Your task to perform on an android device: add a contact in the contacts app Image 0: 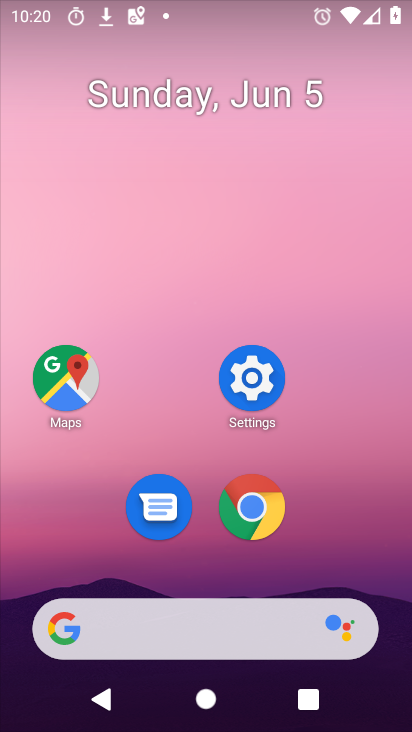
Step 0: drag from (295, 672) to (291, 250)
Your task to perform on an android device: add a contact in the contacts app Image 1: 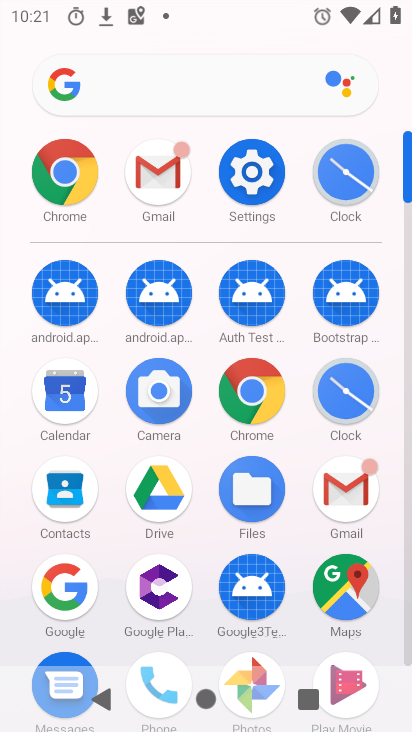
Step 1: click (157, 656)
Your task to perform on an android device: add a contact in the contacts app Image 2: 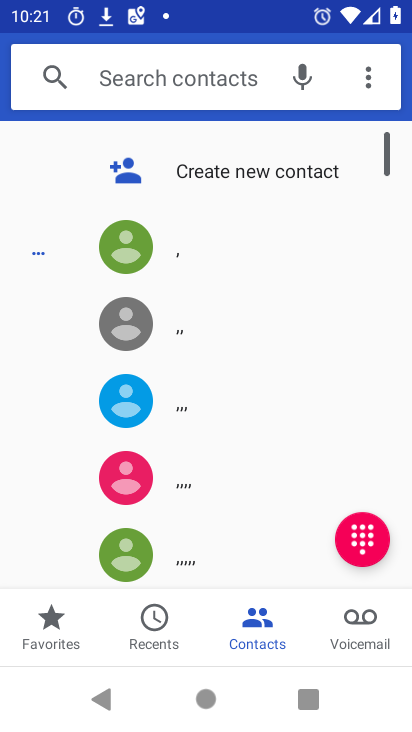
Step 2: click (214, 183)
Your task to perform on an android device: add a contact in the contacts app Image 3: 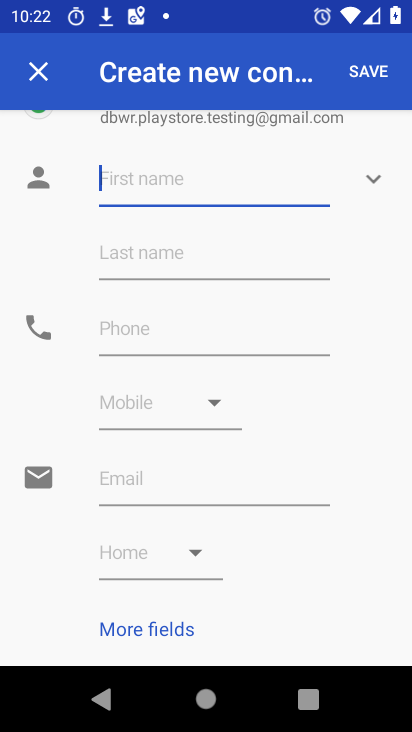
Step 3: click (162, 177)
Your task to perform on an android device: add a contact in the contacts app Image 4: 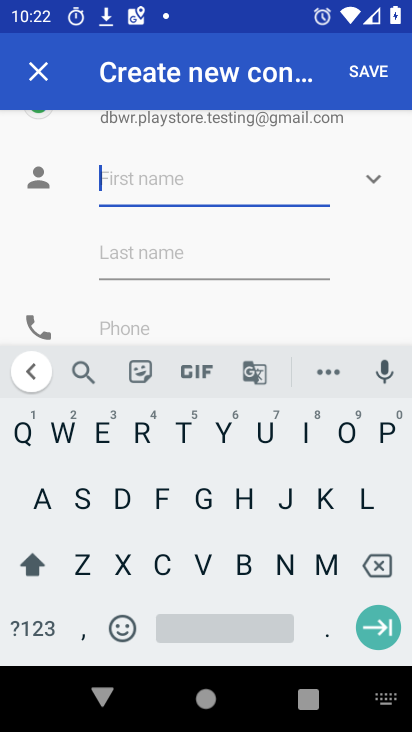
Step 4: click (170, 512)
Your task to perform on an android device: add a contact in the contacts app Image 5: 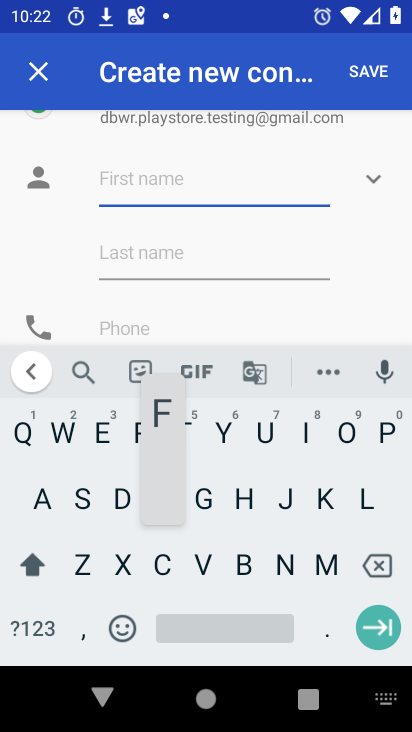
Step 5: click (205, 520)
Your task to perform on an android device: add a contact in the contacts app Image 6: 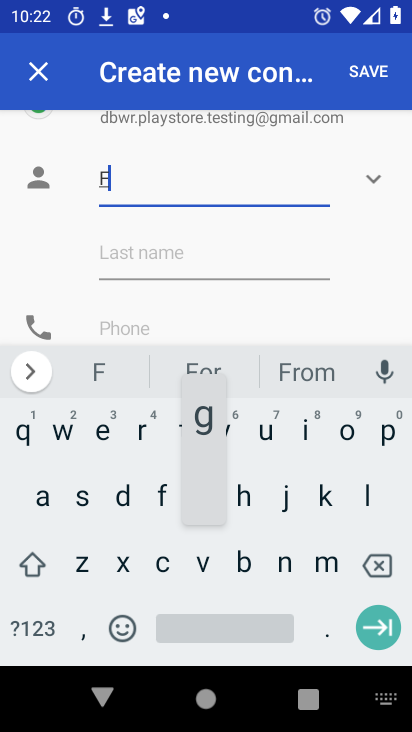
Step 6: click (156, 530)
Your task to perform on an android device: add a contact in the contacts app Image 7: 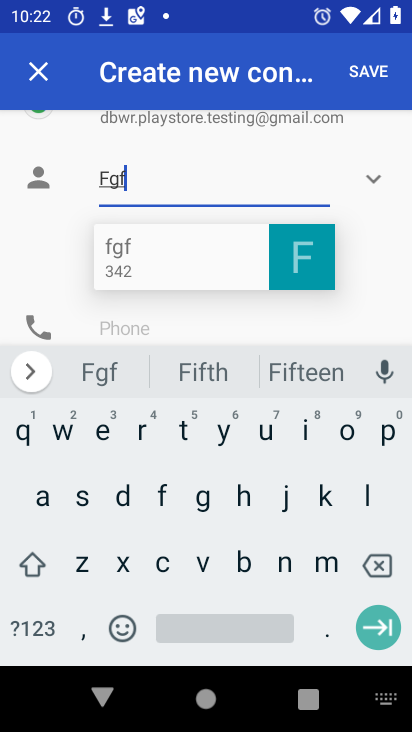
Step 7: click (122, 324)
Your task to perform on an android device: add a contact in the contacts app Image 8: 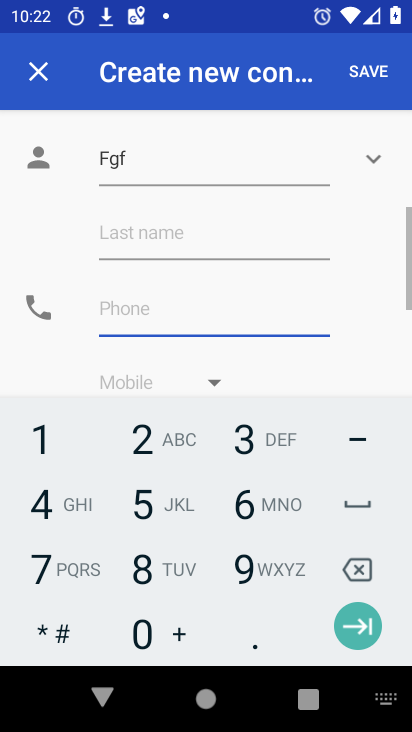
Step 8: click (50, 413)
Your task to perform on an android device: add a contact in the contacts app Image 9: 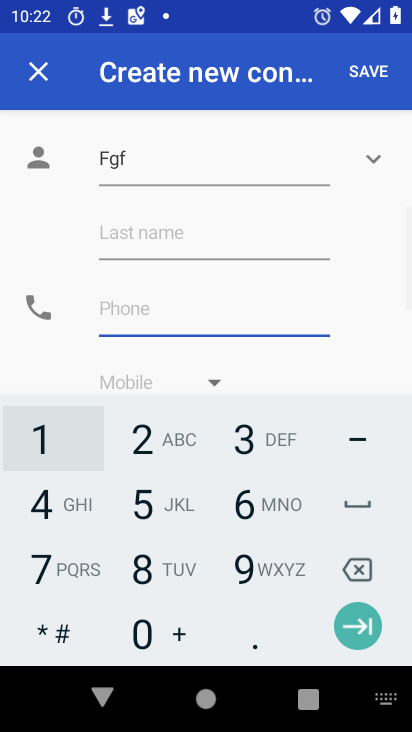
Step 9: click (222, 473)
Your task to perform on an android device: add a contact in the contacts app Image 10: 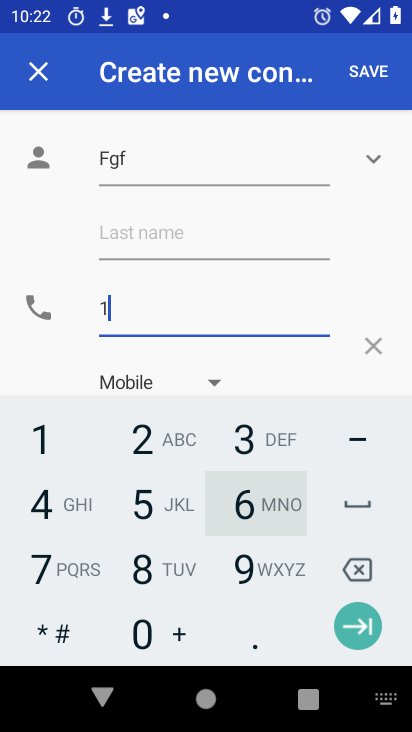
Step 10: click (166, 531)
Your task to perform on an android device: add a contact in the contacts app Image 11: 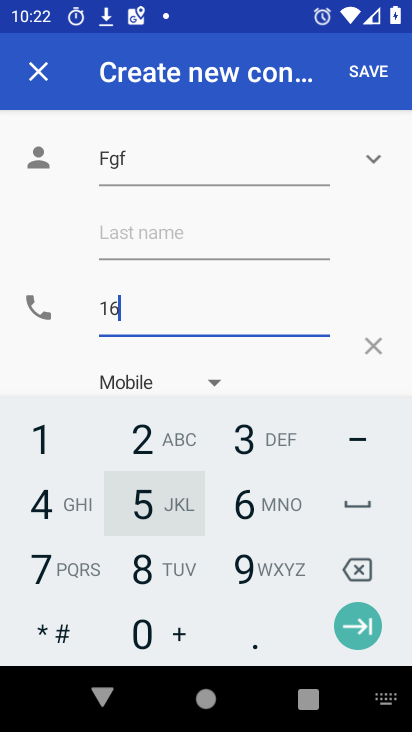
Step 11: click (99, 541)
Your task to perform on an android device: add a contact in the contacts app Image 12: 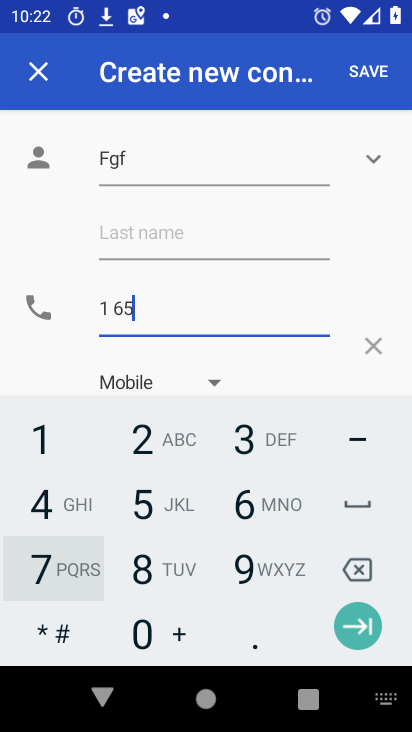
Step 12: click (51, 509)
Your task to perform on an android device: add a contact in the contacts app Image 13: 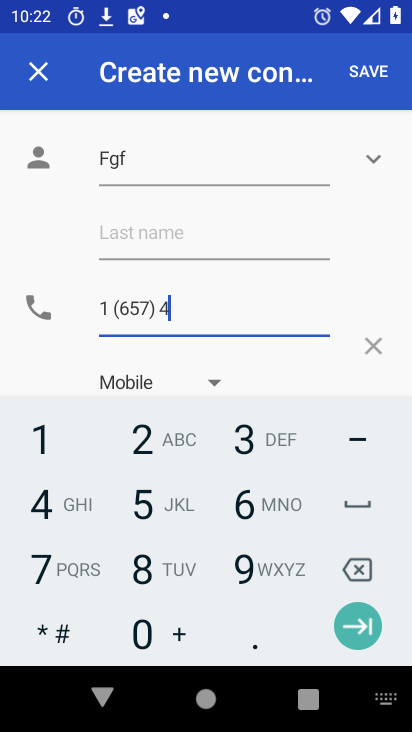
Step 13: click (132, 425)
Your task to perform on an android device: add a contact in the contacts app Image 14: 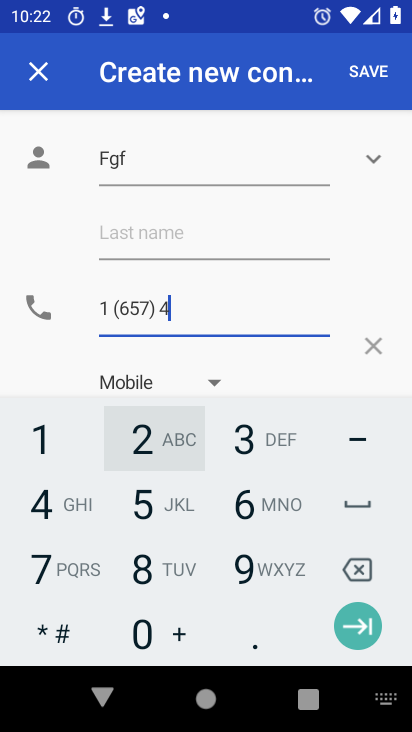
Step 14: click (132, 425)
Your task to perform on an android device: add a contact in the contacts app Image 15: 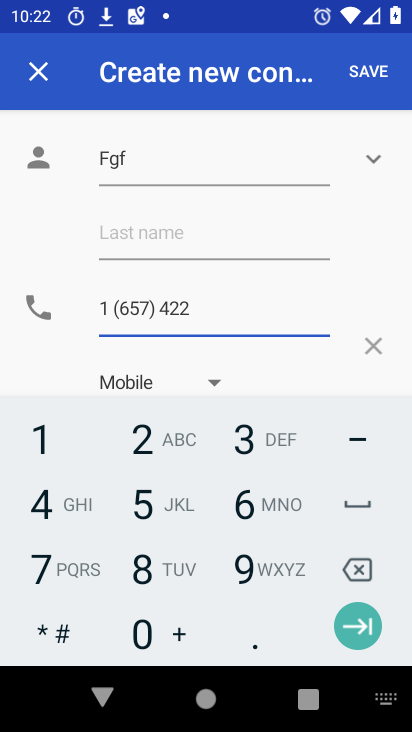
Step 15: click (352, 60)
Your task to perform on an android device: add a contact in the contacts app Image 16: 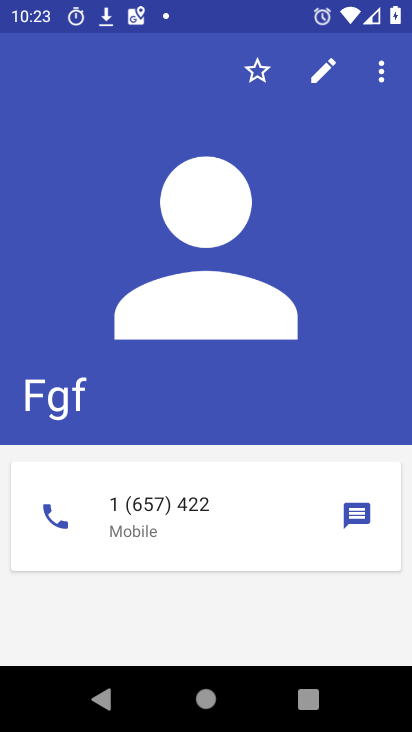
Step 16: task complete